Your task to perform on an android device: change the clock style Image 0: 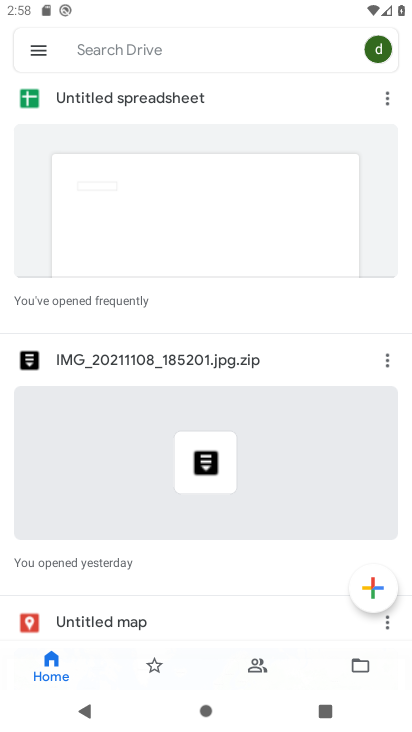
Step 0: press home button
Your task to perform on an android device: change the clock style Image 1: 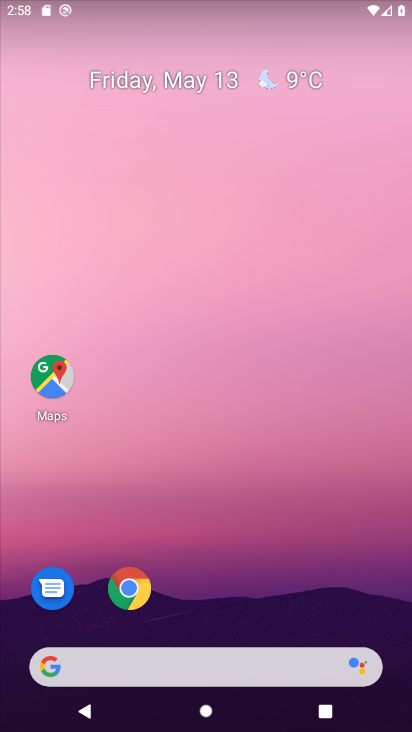
Step 1: drag from (290, 537) to (201, 98)
Your task to perform on an android device: change the clock style Image 2: 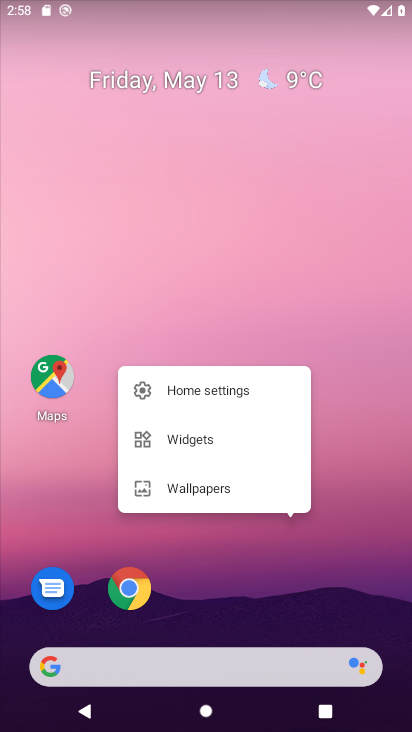
Step 2: drag from (334, 590) to (260, 168)
Your task to perform on an android device: change the clock style Image 3: 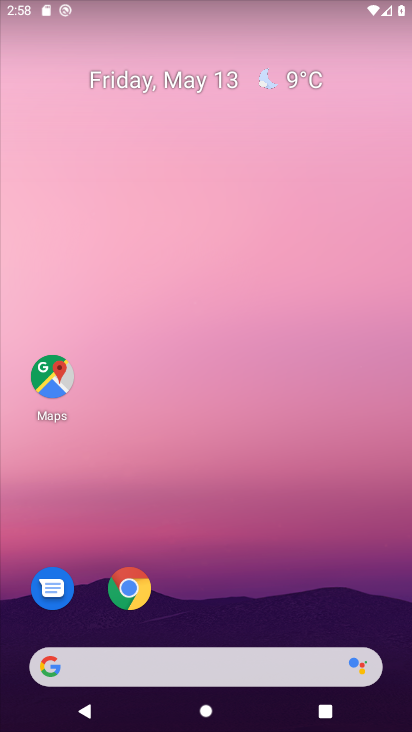
Step 3: drag from (277, 602) to (234, 265)
Your task to perform on an android device: change the clock style Image 4: 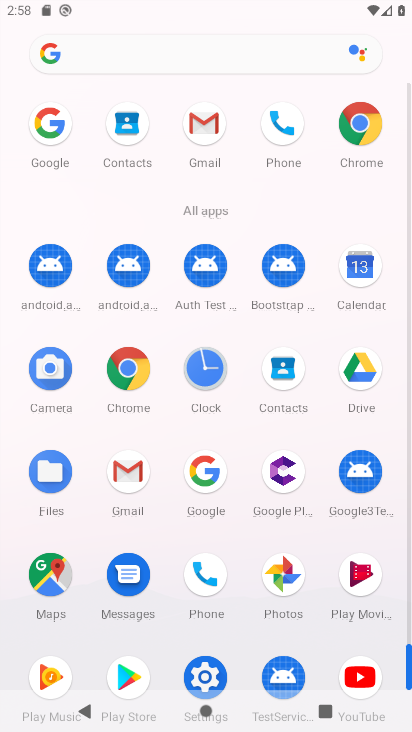
Step 4: click (204, 375)
Your task to perform on an android device: change the clock style Image 5: 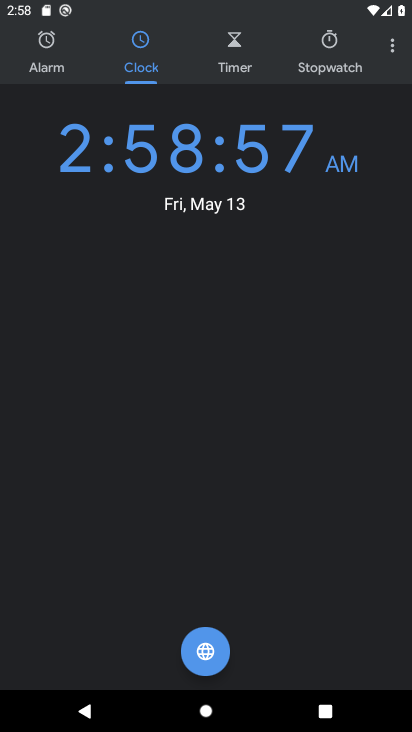
Step 5: click (390, 41)
Your task to perform on an android device: change the clock style Image 6: 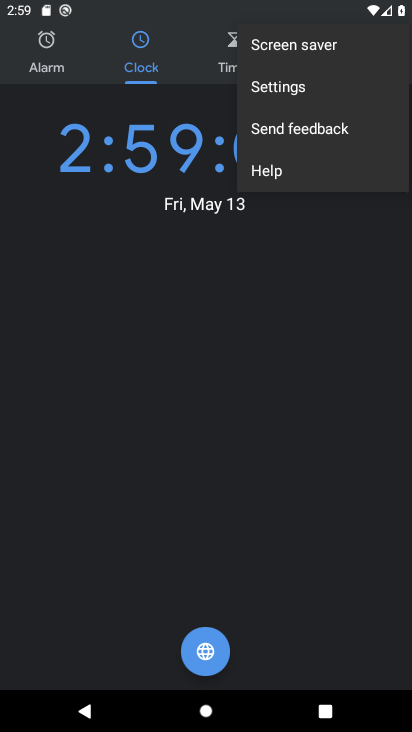
Step 6: click (300, 95)
Your task to perform on an android device: change the clock style Image 7: 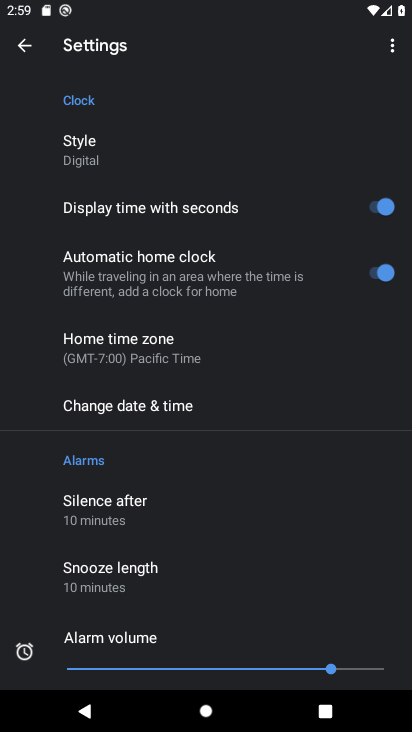
Step 7: click (125, 159)
Your task to perform on an android device: change the clock style Image 8: 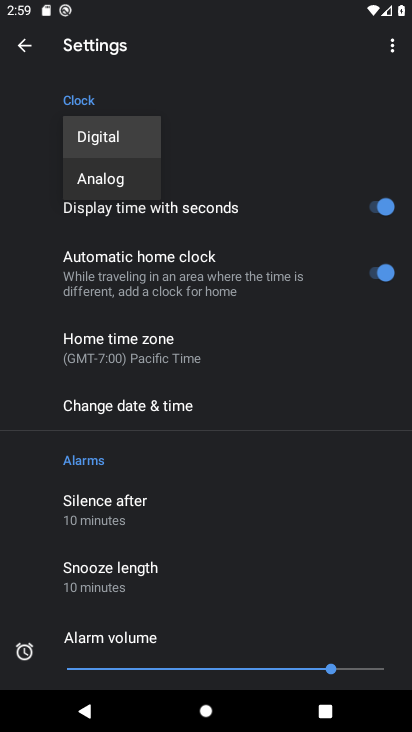
Step 8: click (129, 182)
Your task to perform on an android device: change the clock style Image 9: 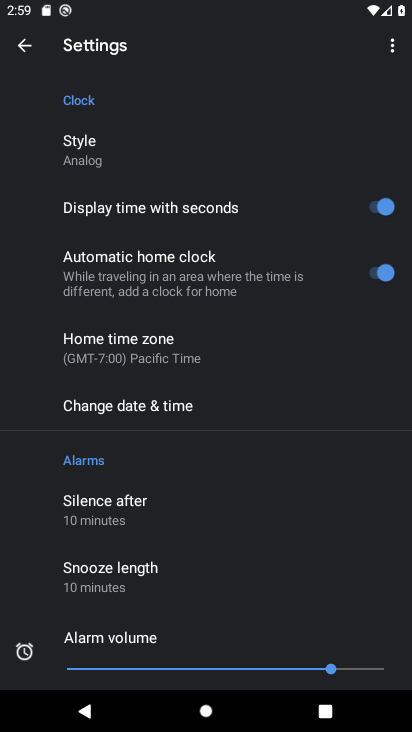
Step 9: task complete